Your task to perform on an android device: open app "Microsoft Excel" (install if not already installed) Image 0: 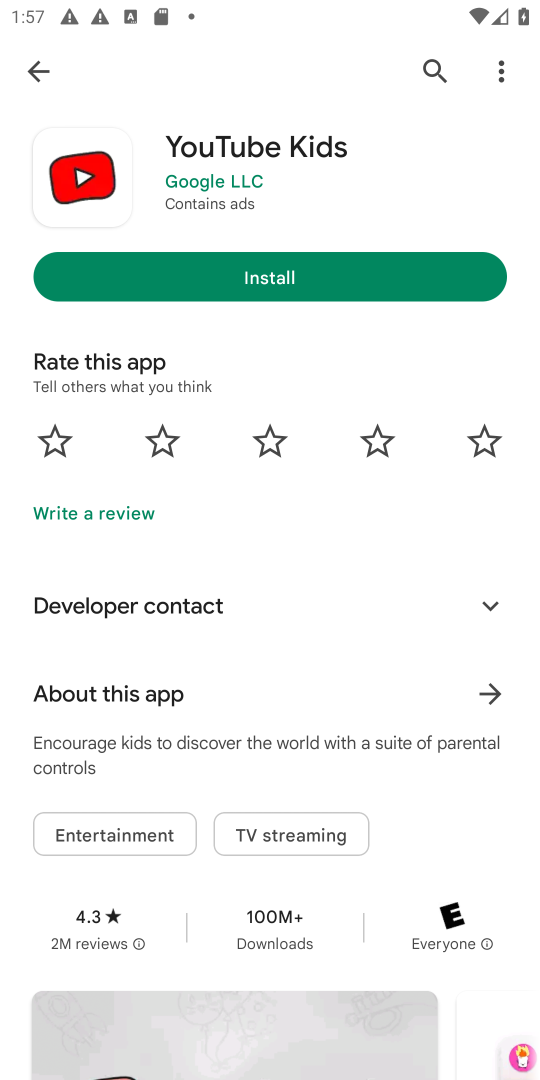
Step 0: click (33, 72)
Your task to perform on an android device: open app "Microsoft Excel" (install if not already installed) Image 1: 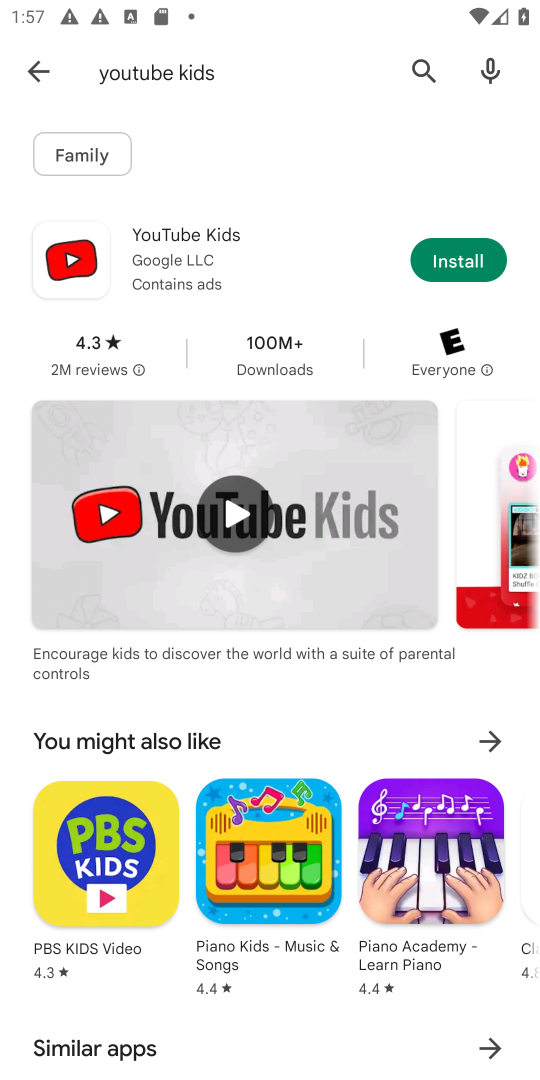
Step 1: click (39, 76)
Your task to perform on an android device: open app "Microsoft Excel" (install if not already installed) Image 2: 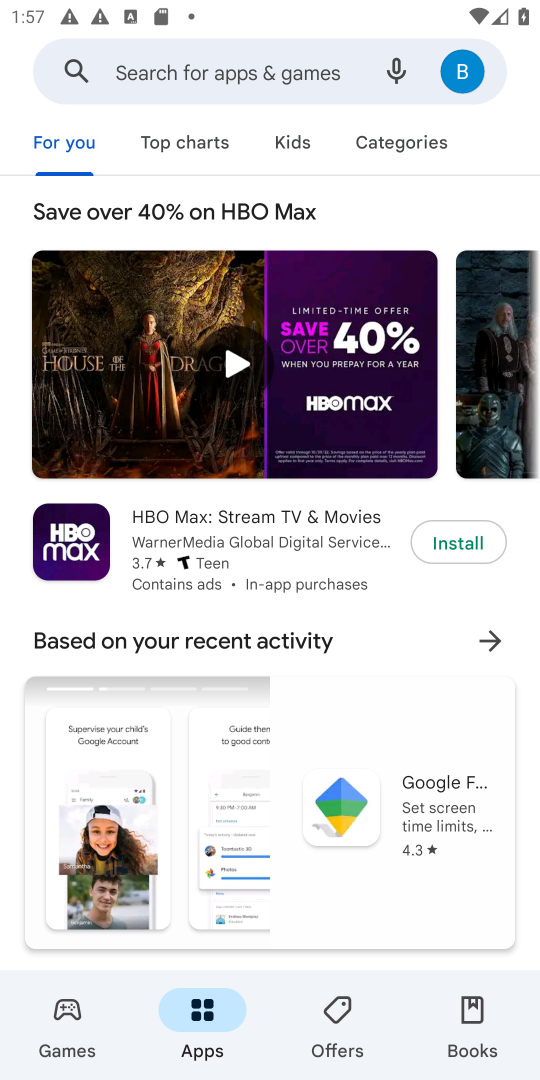
Step 2: click (195, 66)
Your task to perform on an android device: open app "Microsoft Excel" (install if not already installed) Image 3: 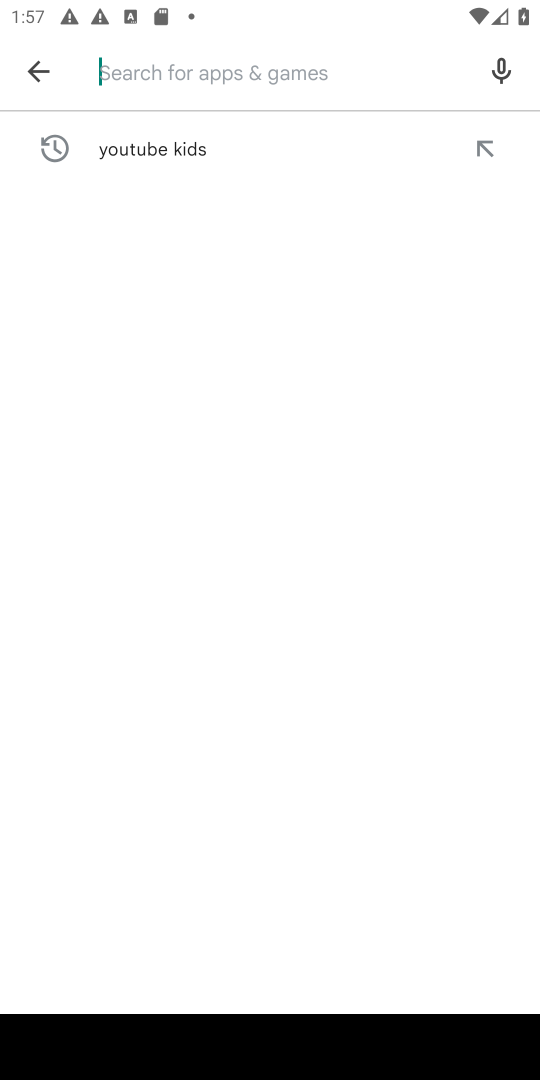
Step 3: type "Microsoft Excel"
Your task to perform on an android device: open app "Microsoft Excel" (install if not already installed) Image 4: 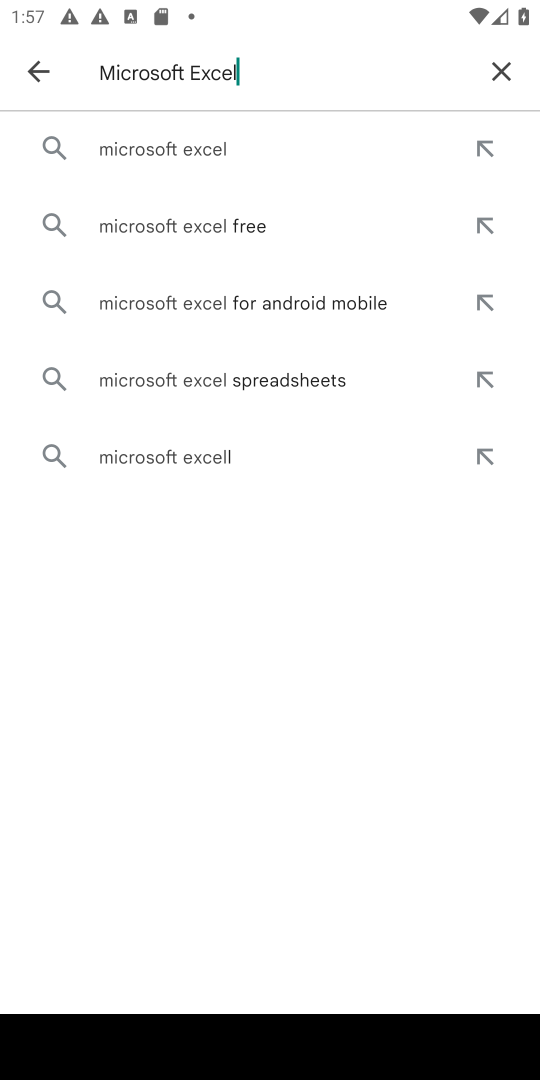
Step 4: click (189, 139)
Your task to perform on an android device: open app "Microsoft Excel" (install if not already installed) Image 5: 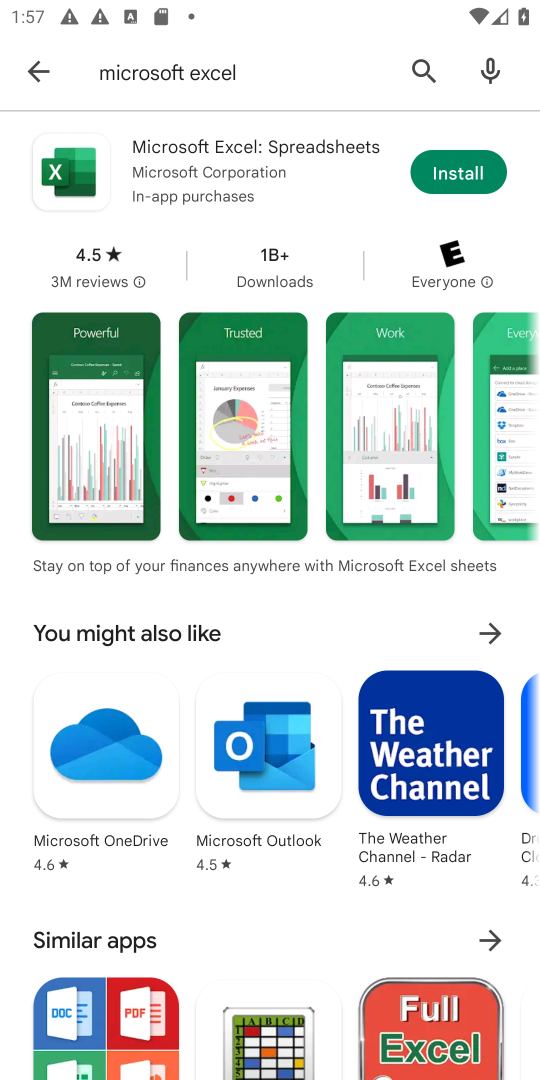
Step 5: click (462, 180)
Your task to perform on an android device: open app "Microsoft Excel" (install if not already installed) Image 6: 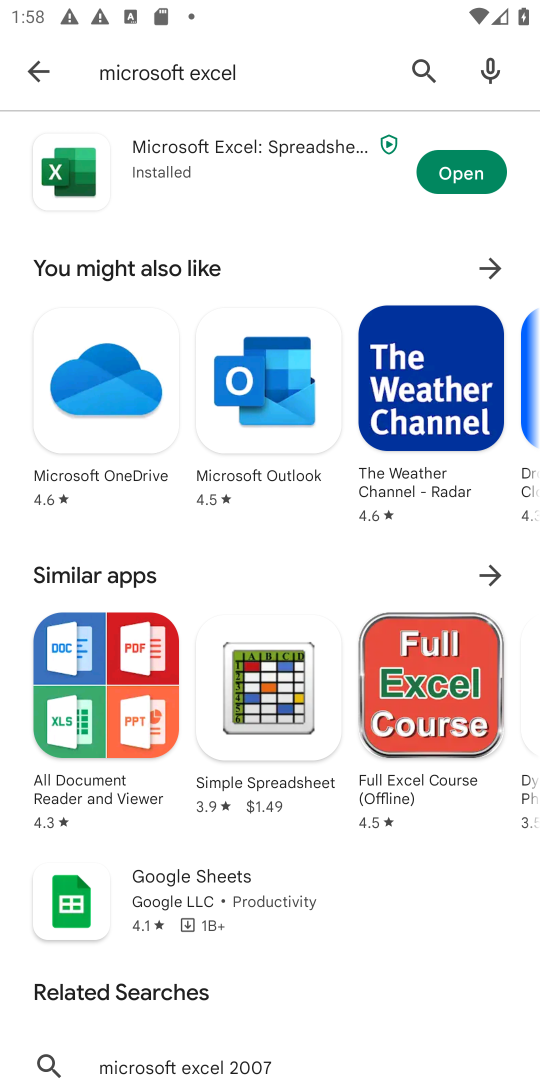
Step 6: click (439, 168)
Your task to perform on an android device: open app "Microsoft Excel" (install if not already installed) Image 7: 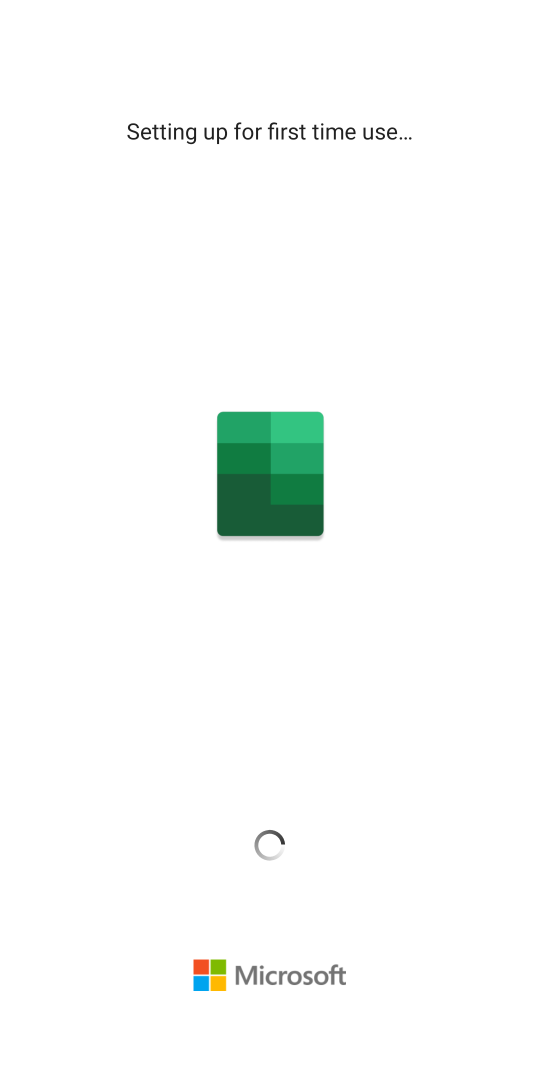
Step 7: task complete